Your task to perform on an android device: Go to CNN.com Image 0: 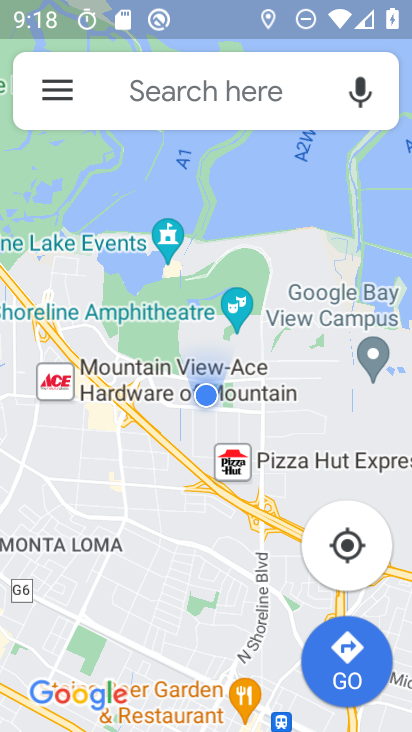
Step 0: press home button
Your task to perform on an android device: Go to CNN.com Image 1: 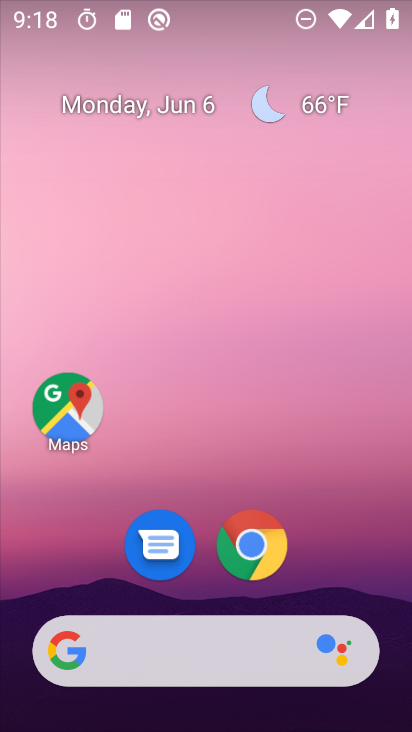
Step 1: click (242, 539)
Your task to perform on an android device: Go to CNN.com Image 2: 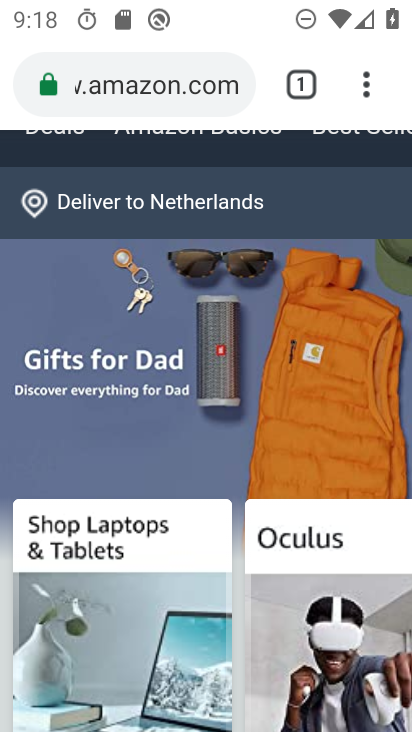
Step 2: click (153, 79)
Your task to perform on an android device: Go to CNN.com Image 3: 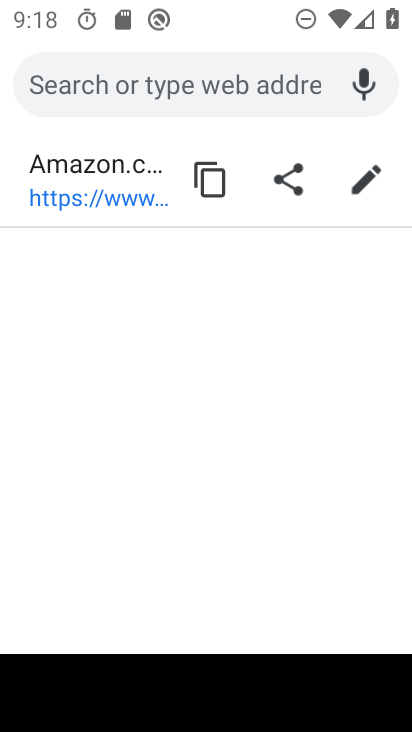
Step 3: type "CNN.com"
Your task to perform on an android device: Go to CNN.com Image 4: 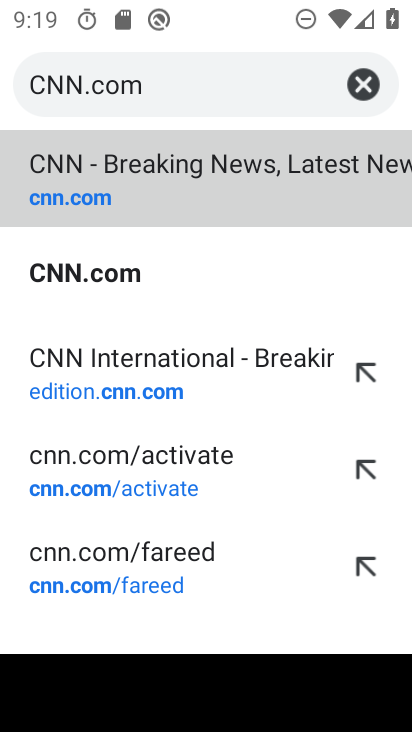
Step 4: click (181, 203)
Your task to perform on an android device: Go to CNN.com Image 5: 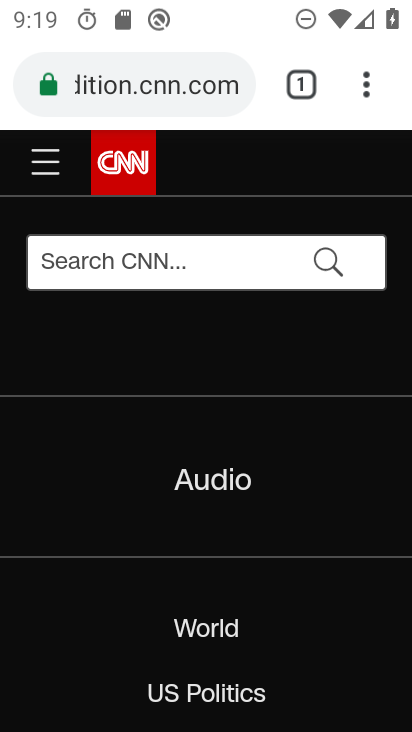
Step 5: task complete